Your task to perform on an android device: Go to Android settings Image 0: 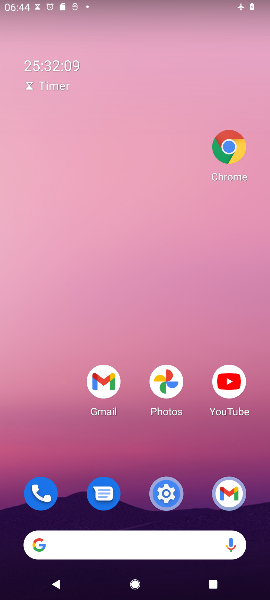
Step 0: press home button
Your task to perform on an android device: Go to Android settings Image 1: 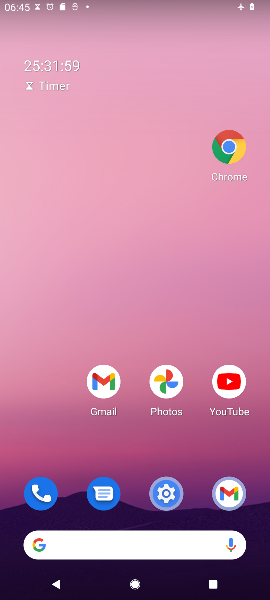
Step 1: click (175, 495)
Your task to perform on an android device: Go to Android settings Image 2: 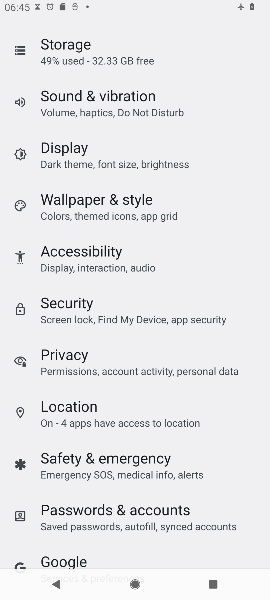
Step 2: task complete